Your task to perform on an android device: When is my next meeting? Image 0: 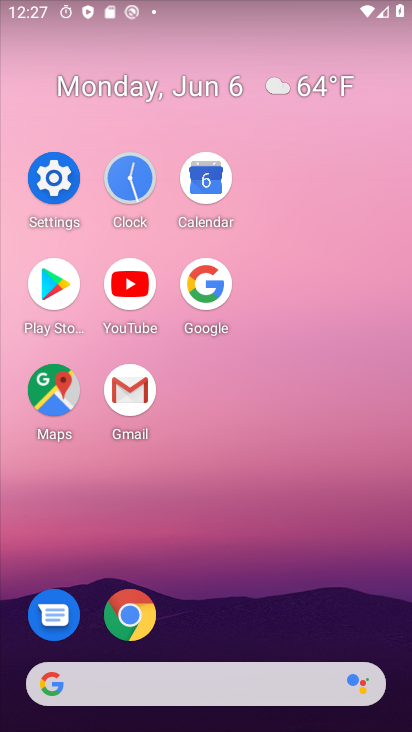
Step 0: click (199, 182)
Your task to perform on an android device: When is my next meeting? Image 1: 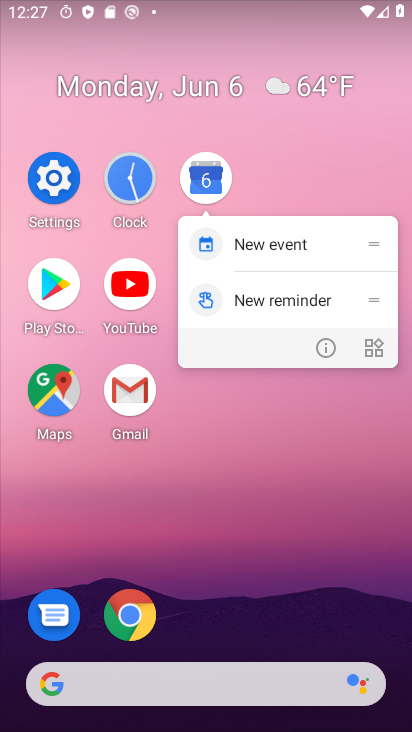
Step 1: click (200, 185)
Your task to perform on an android device: When is my next meeting? Image 2: 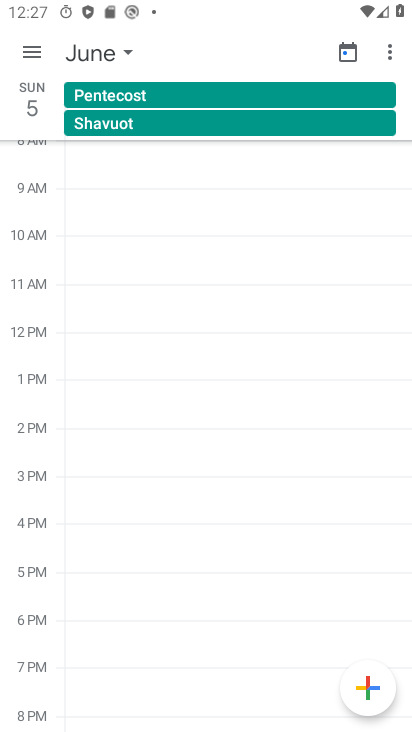
Step 2: task complete